Your task to perform on an android device: delete the emails in spam in the gmail app Image 0: 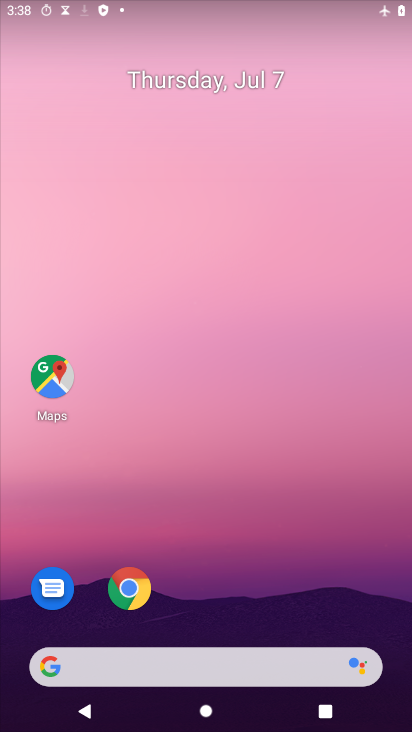
Step 0: drag from (315, 678) to (301, 34)
Your task to perform on an android device: delete the emails in spam in the gmail app Image 1: 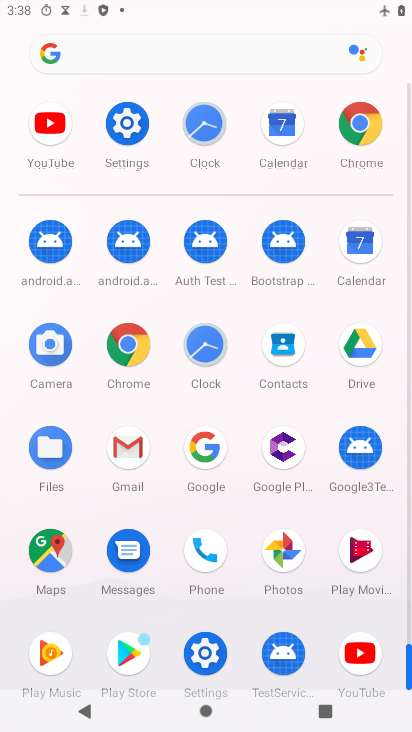
Step 1: click (128, 460)
Your task to perform on an android device: delete the emails in spam in the gmail app Image 2: 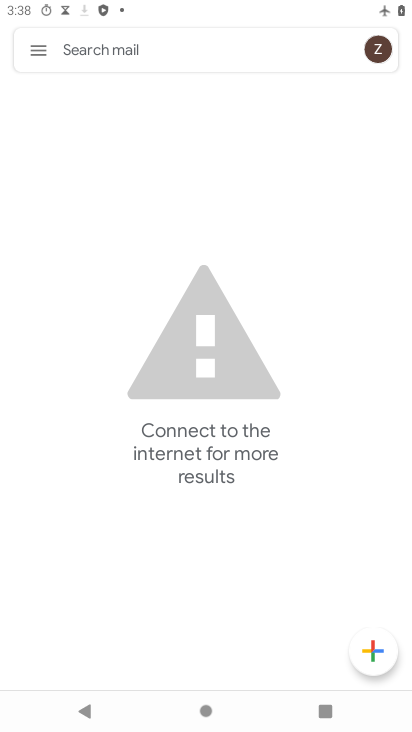
Step 2: task complete